Your task to perform on an android device: toggle location history Image 0: 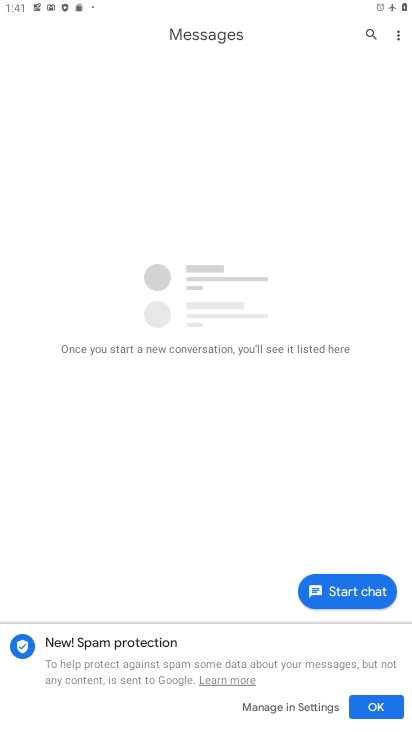
Step 0: press home button
Your task to perform on an android device: toggle location history Image 1: 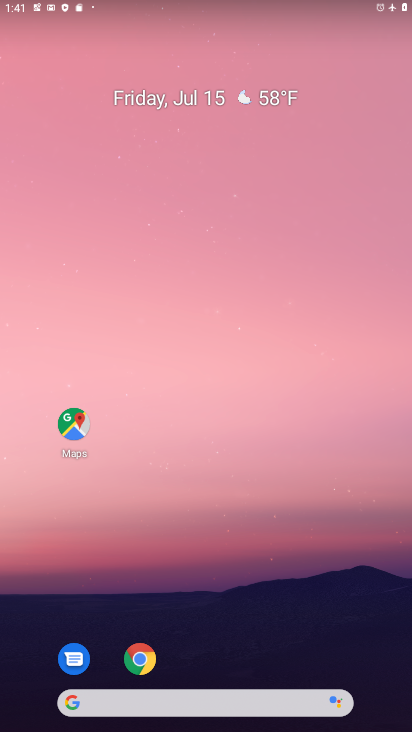
Step 1: drag from (250, 725) to (252, 1)
Your task to perform on an android device: toggle location history Image 2: 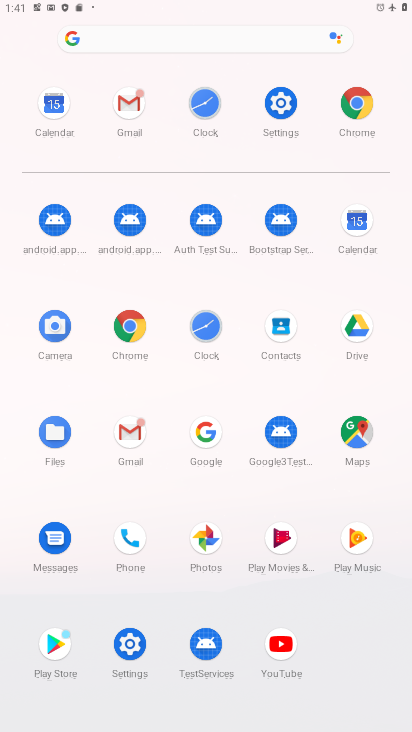
Step 2: click (279, 103)
Your task to perform on an android device: toggle location history Image 3: 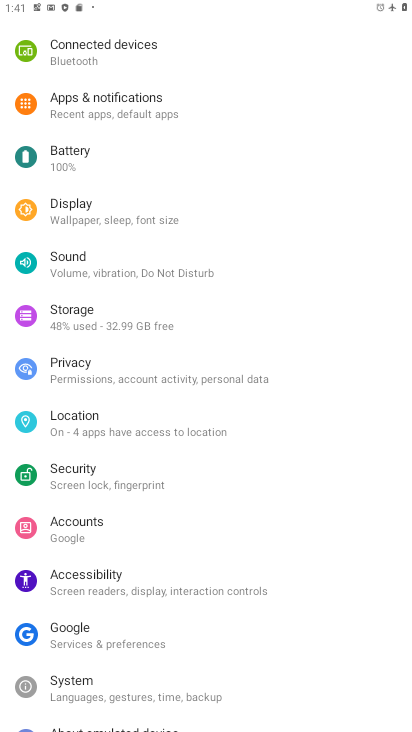
Step 3: click (69, 422)
Your task to perform on an android device: toggle location history Image 4: 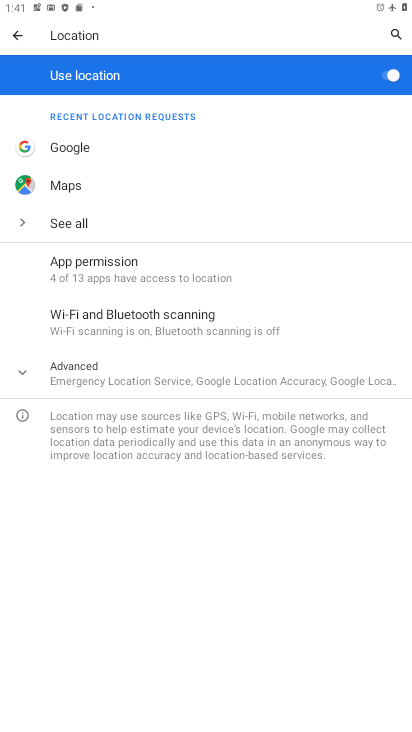
Step 4: click (128, 380)
Your task to perform on an android device: toggle location history Image 5: 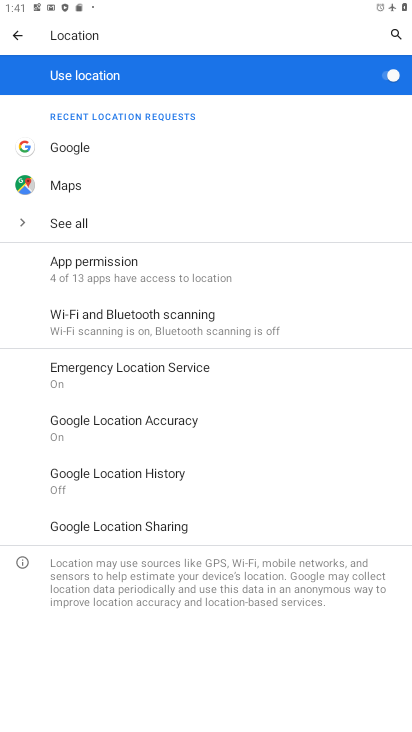
Step 5: click (149, 461)
Your task to perform on an android device: toggle location history Image 6: 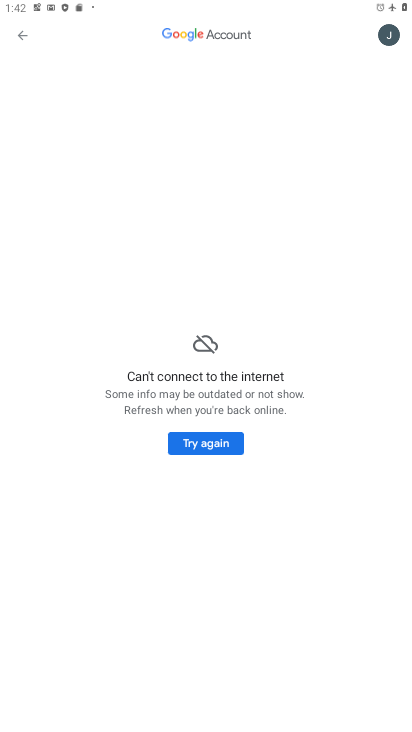
Step 6: task complete